Your task to perform on an android device: check google app version Image 0: 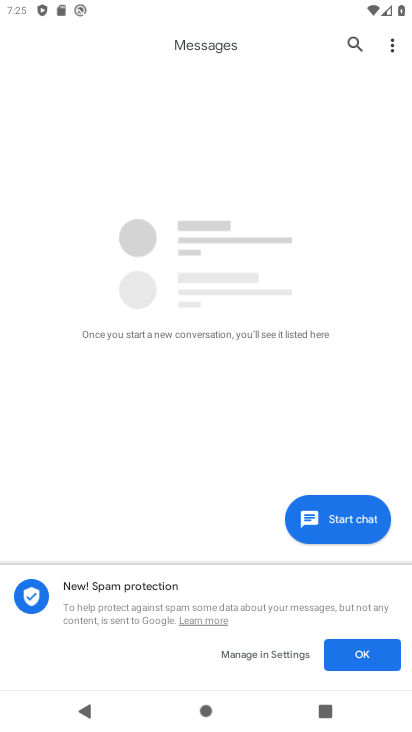
Step 0: click (370, 661)
Your task to perform on an android device: check google app version Image 1: 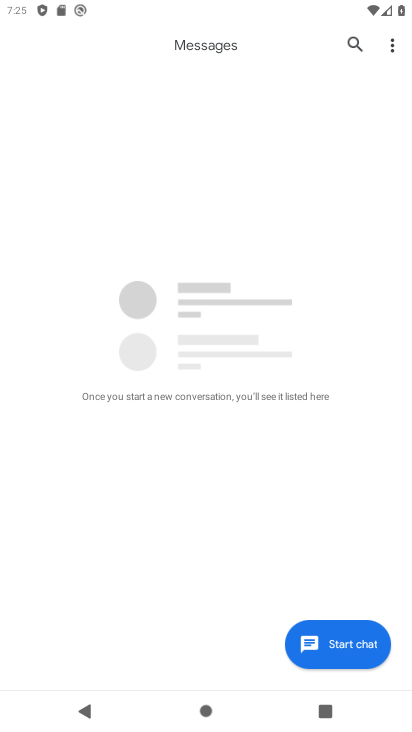
Step 1: press home button
Your task to perform on an android device: check google app version Image 2: 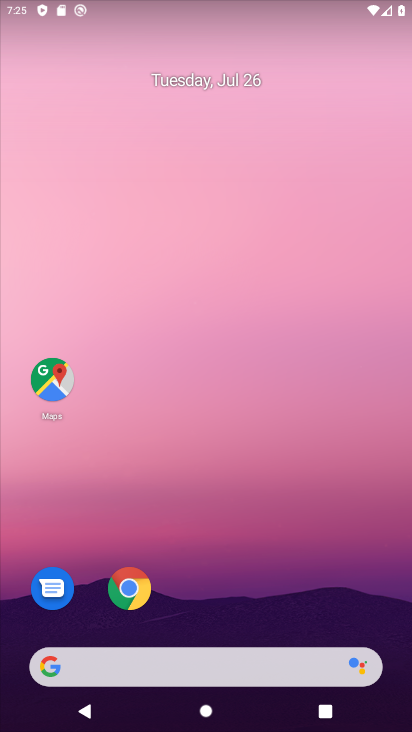
Step 2: click (168, 668)
Your task to perform on an android device: check google app version Image 3: 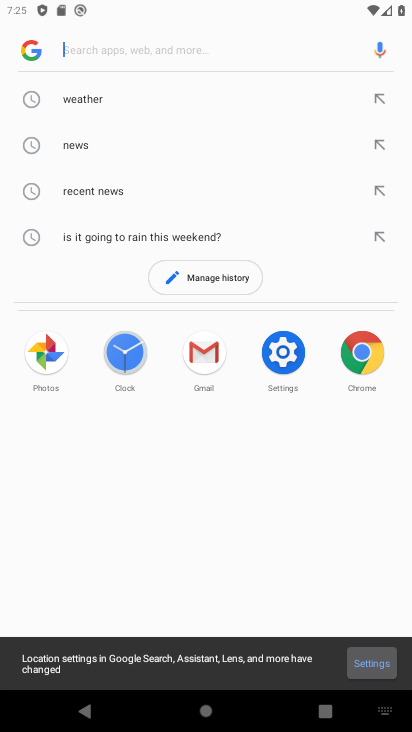
Step 3: click (25, 48)
Your task to perform on an android device: check google app version Image 4: 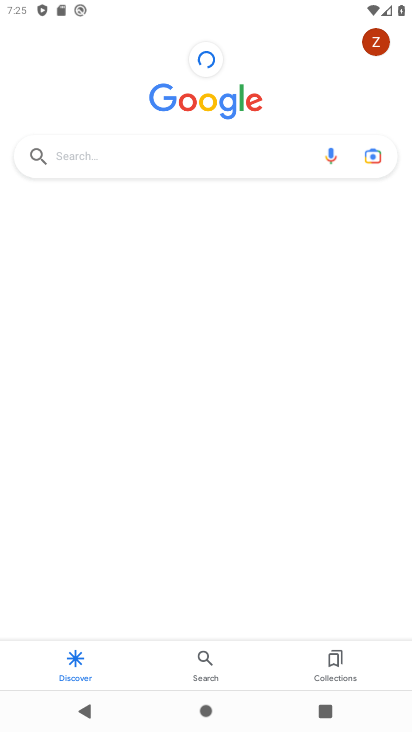
Step 4: click (387, 45)
Your task to perform on an android device: check google app version Image 5: 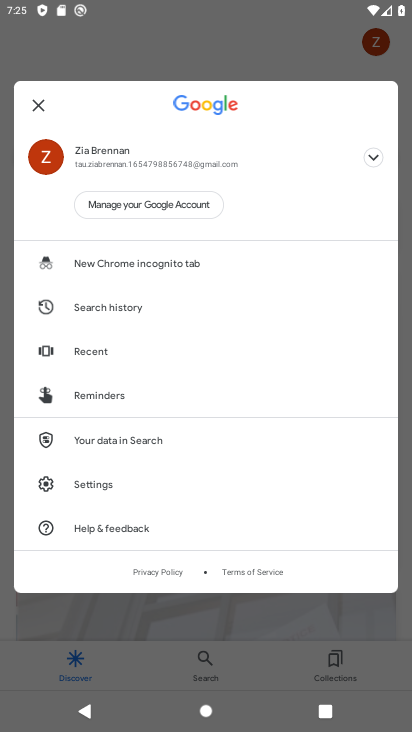
Step 5: click (88, 497)
Your task to perform on an android device: check google app version Image 6: 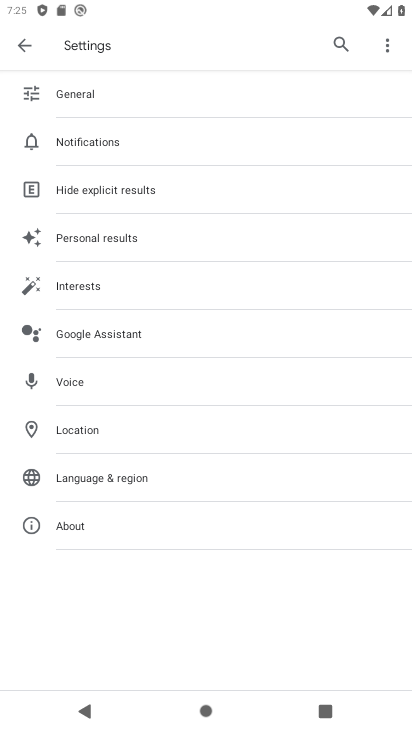
Step 6: task complete